Your task to perform on an android device: change timer sound Image 0: 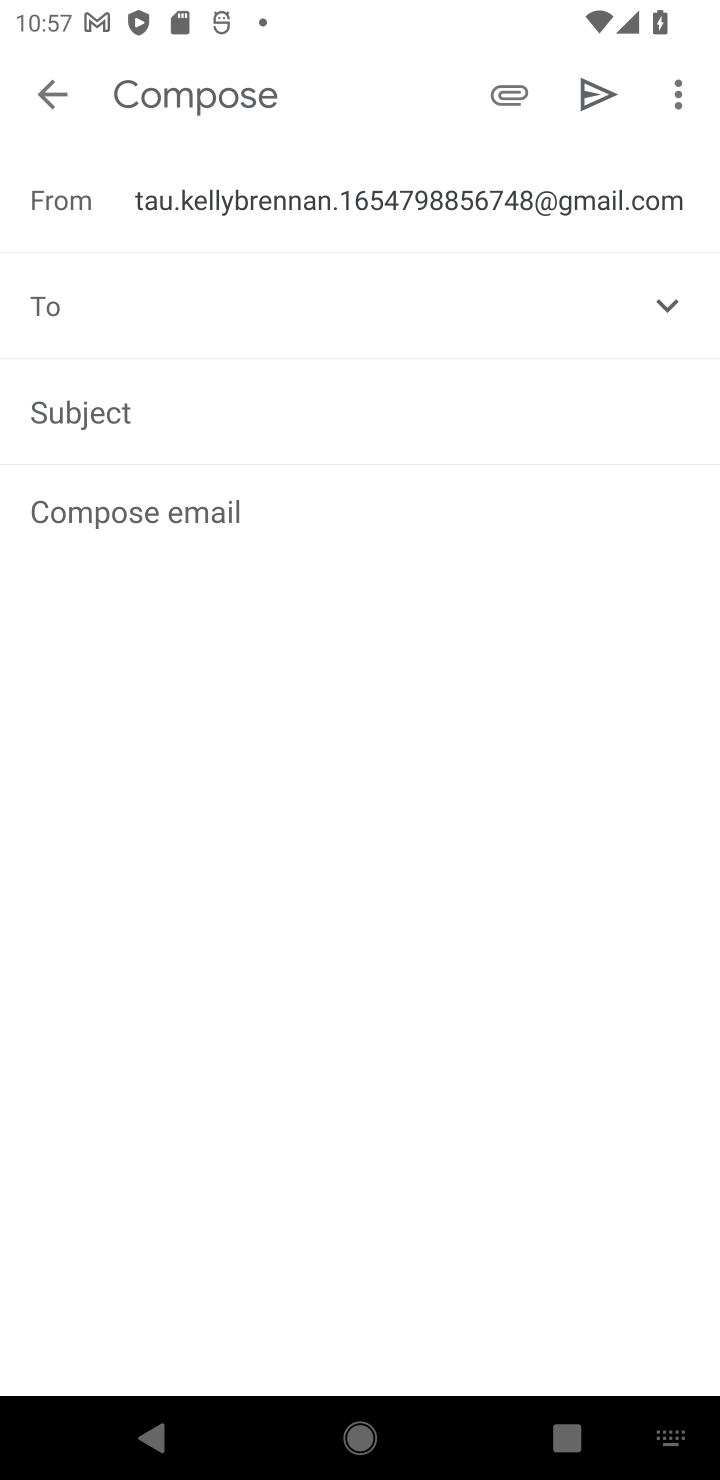
Step 0: press home button
Your task to perform on an android device: change timer sound Image 1: 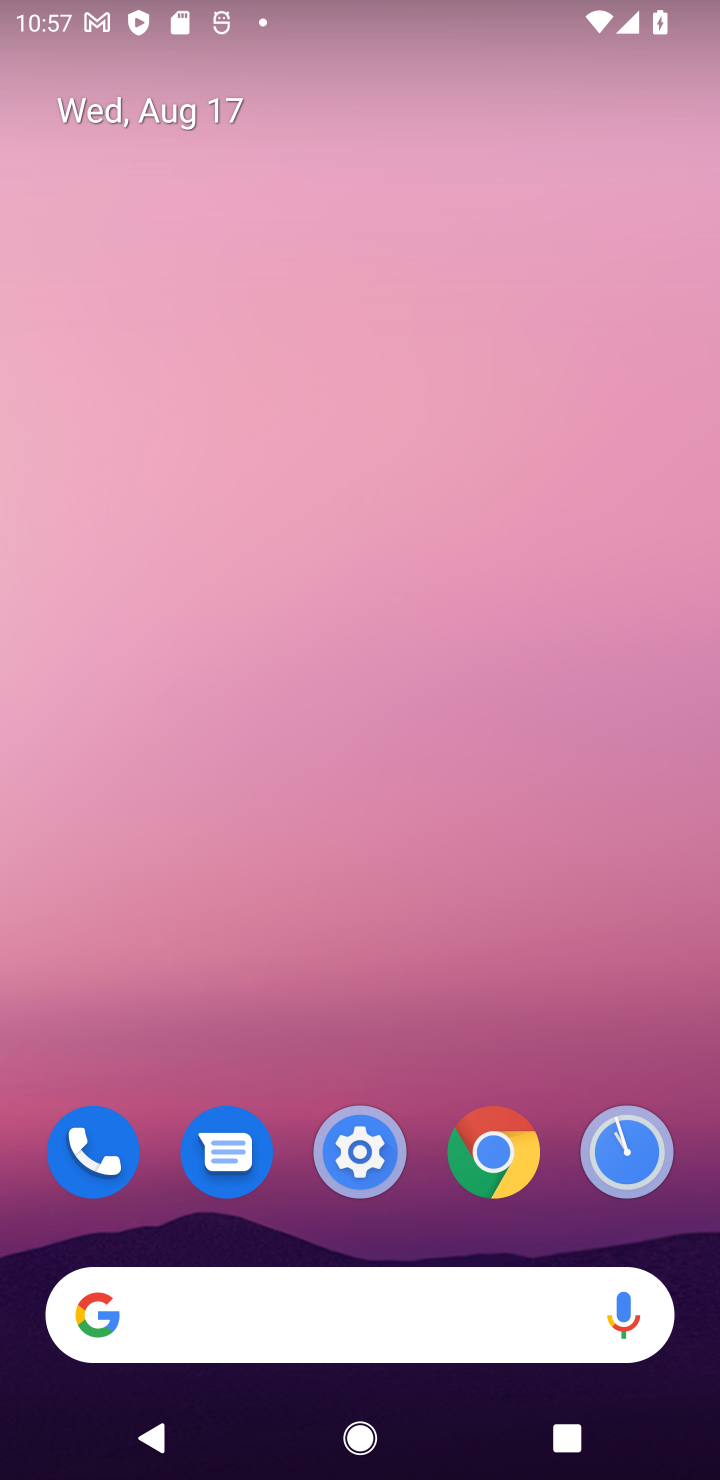
Step 1: drag from (553, 1200) to (280, 12)
Your task to perform on an android device: change timer sound Image 2: 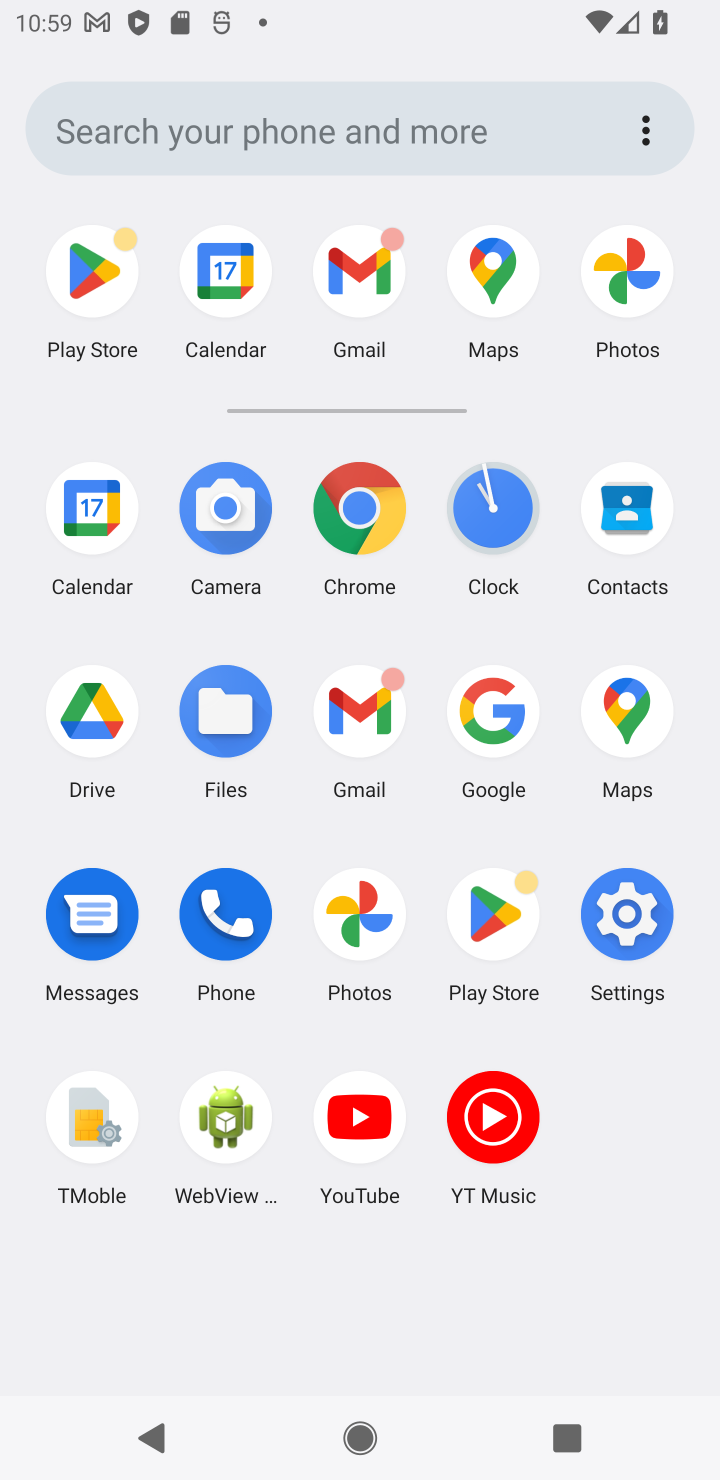
Step 2: click (500, 507)
Your task to perform on an android device: change timer sound Image 3: 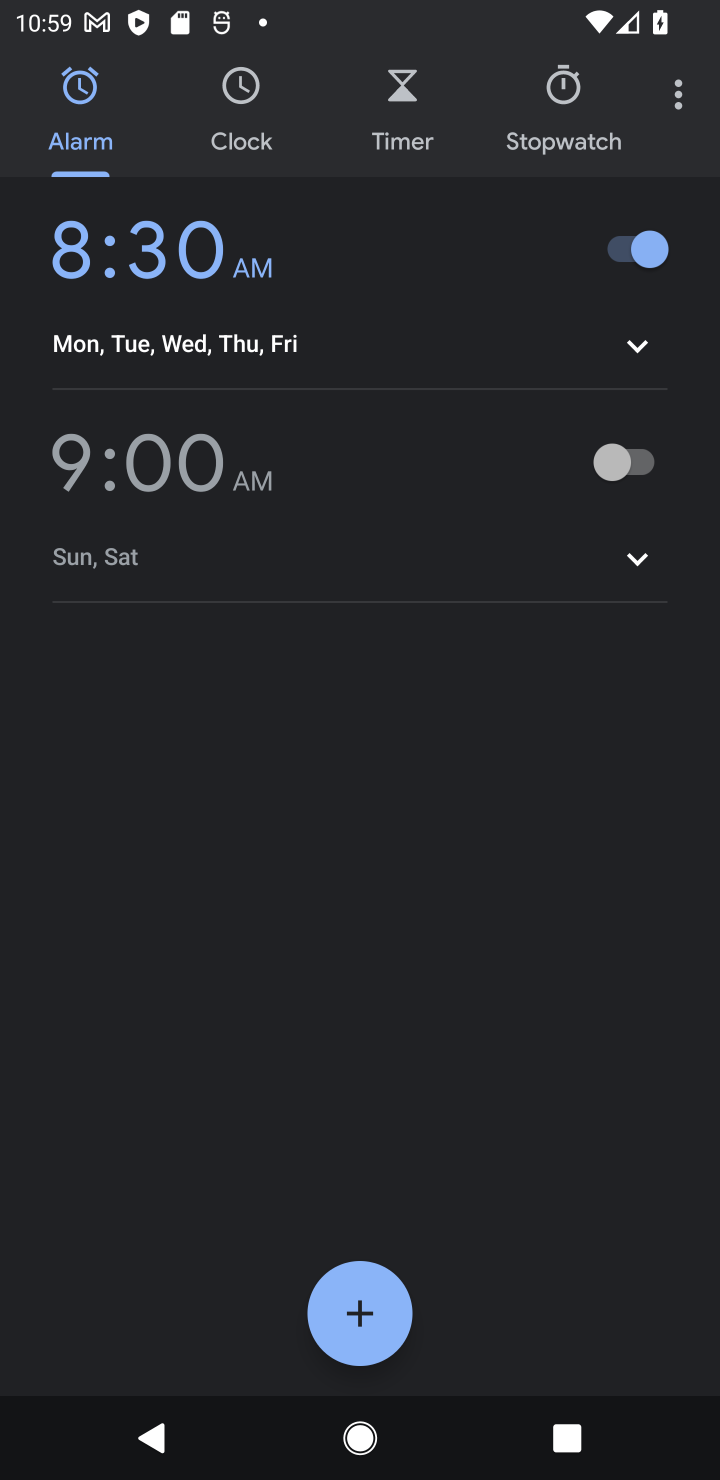
Step 3: click (686, 77)
Your task to perform on an android device: change timer sound Image 4: 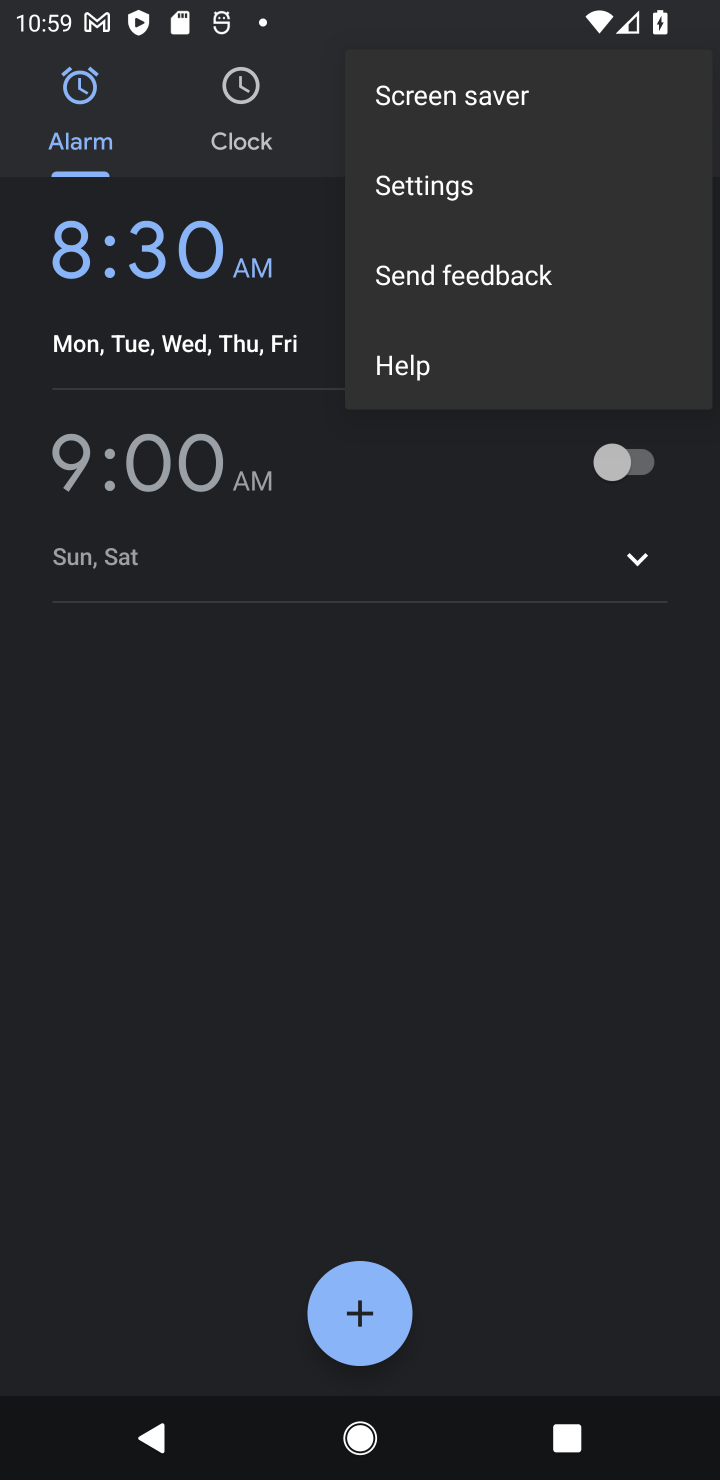
Step 4: click (452, 193)
Your task to perform on an android device: change timer sound Image 5: 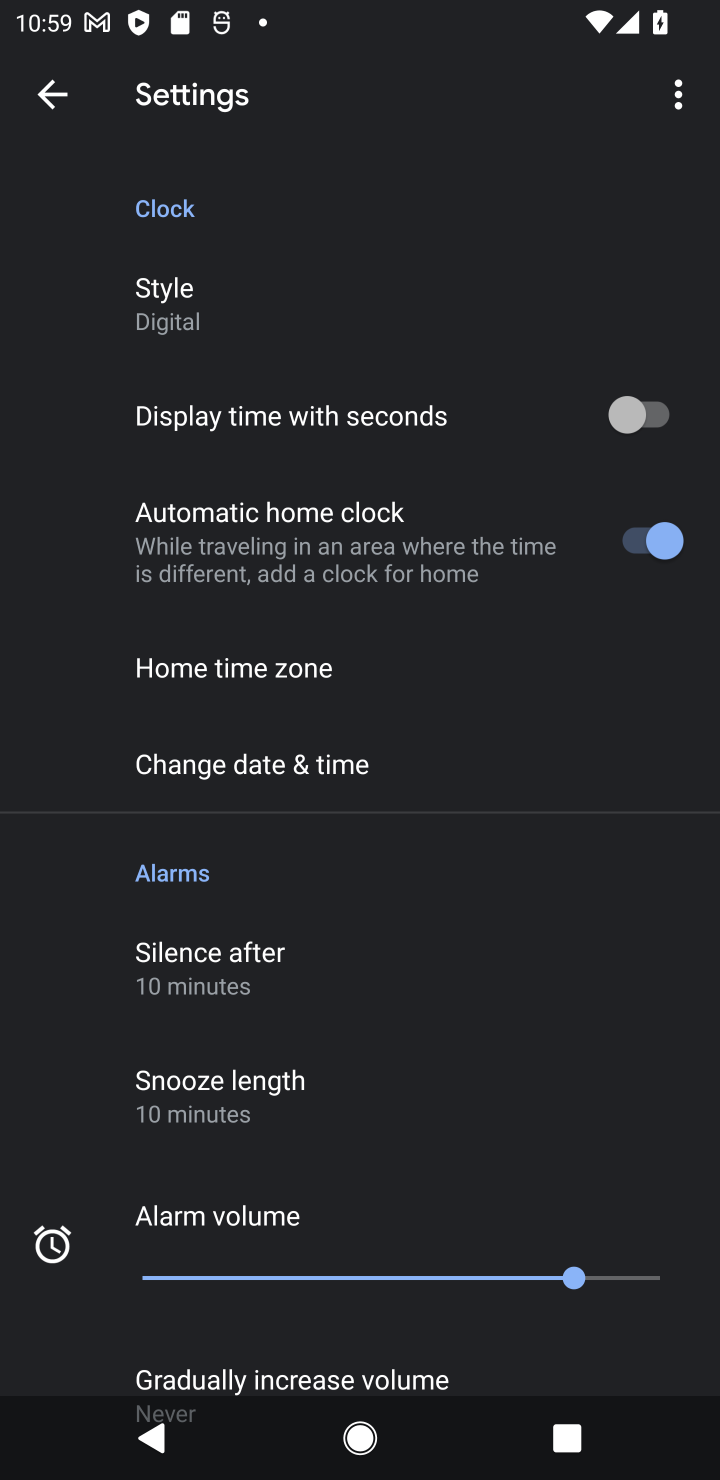
Step 5: drag from (289, 1272) to (363, 121)
Your task to perform on an android device: change timer sound Image 6: 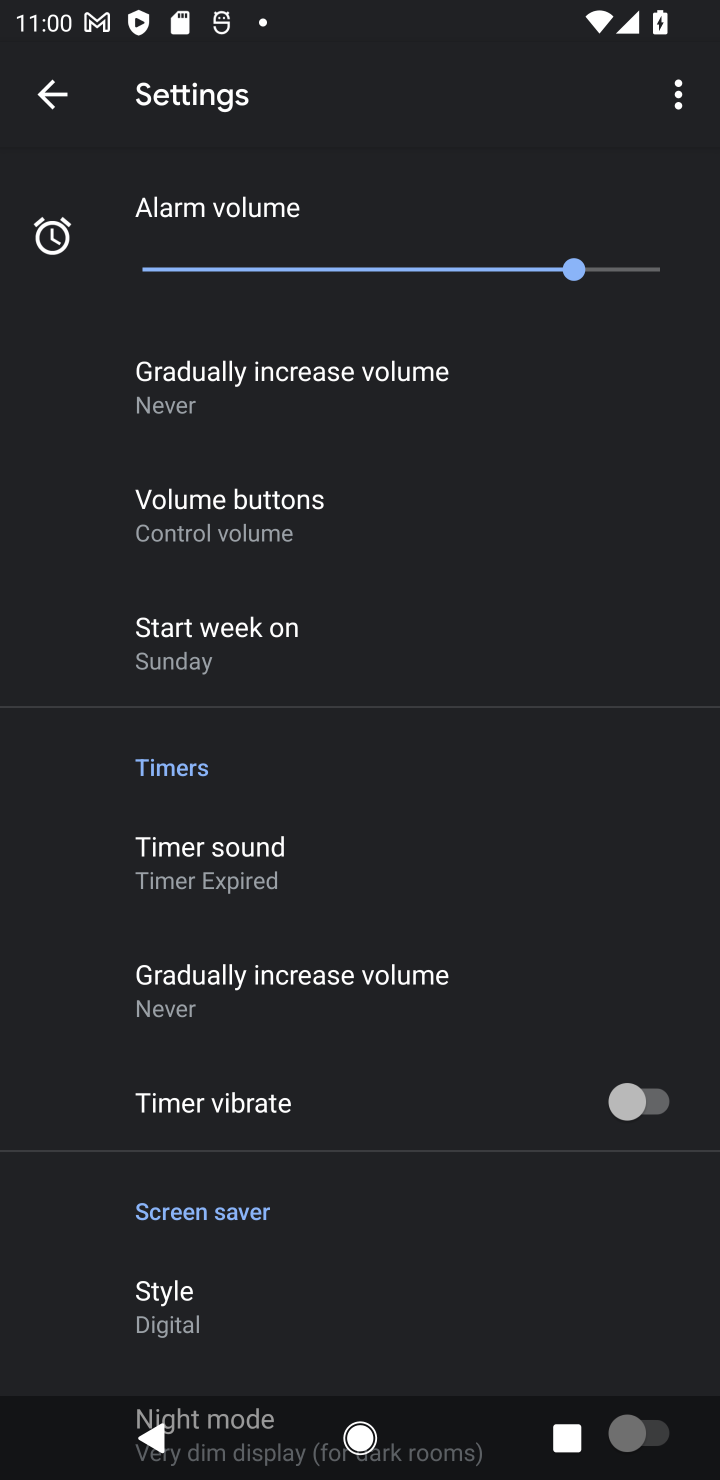
Step 6: click (297, 866)
Your task to perform on an android device: change timer sound Image 7: 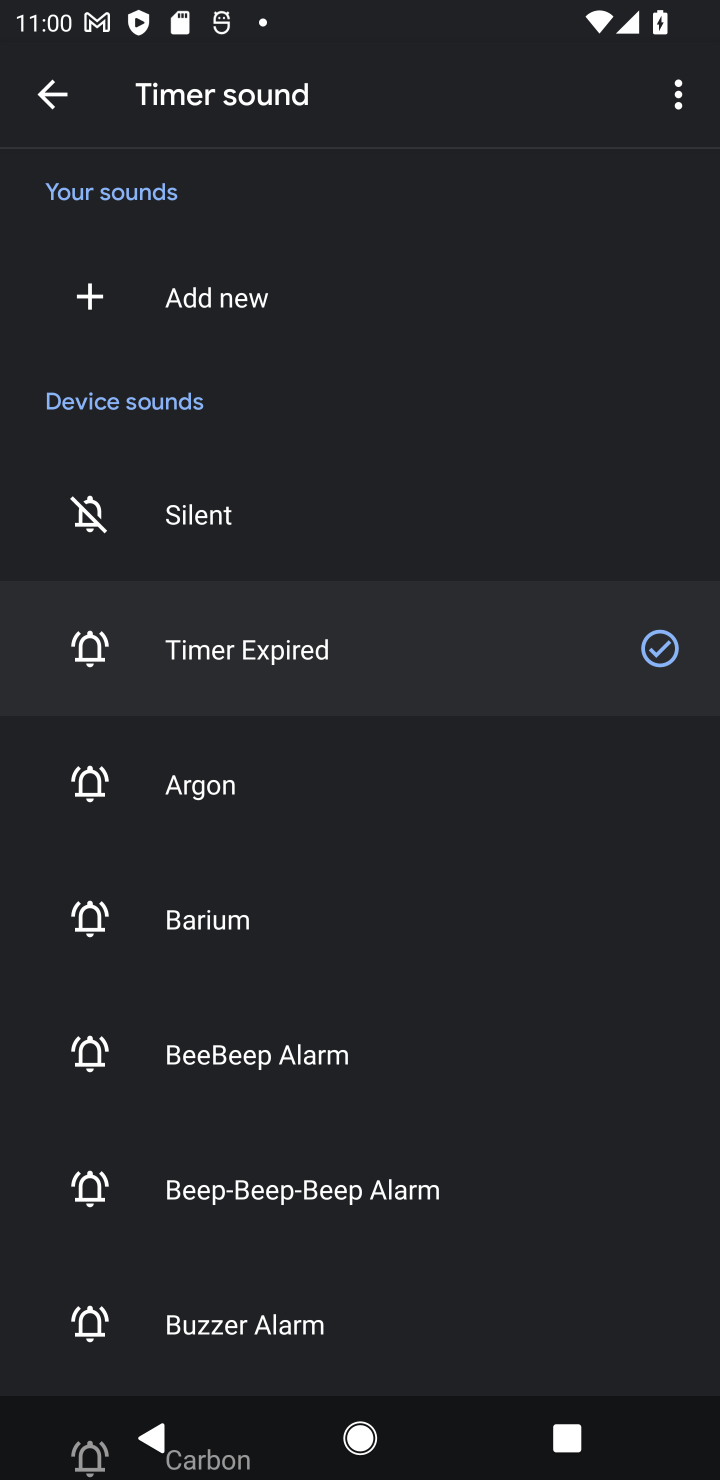
Step 7: click (228, 805)
Your task to perform on an android device: change timer sound Image 8: 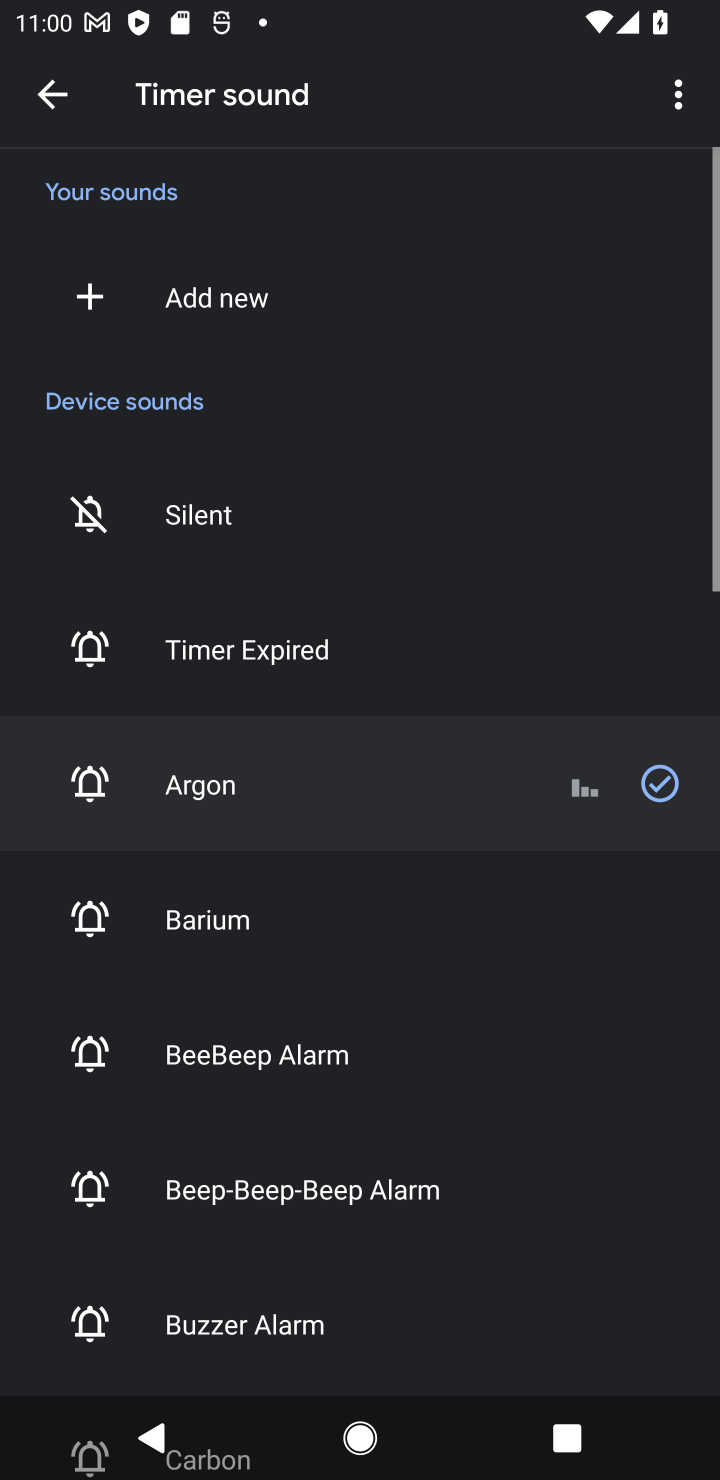
Step 8: task complete